Your task to perform on an android device: turn notification dots on Image 0: 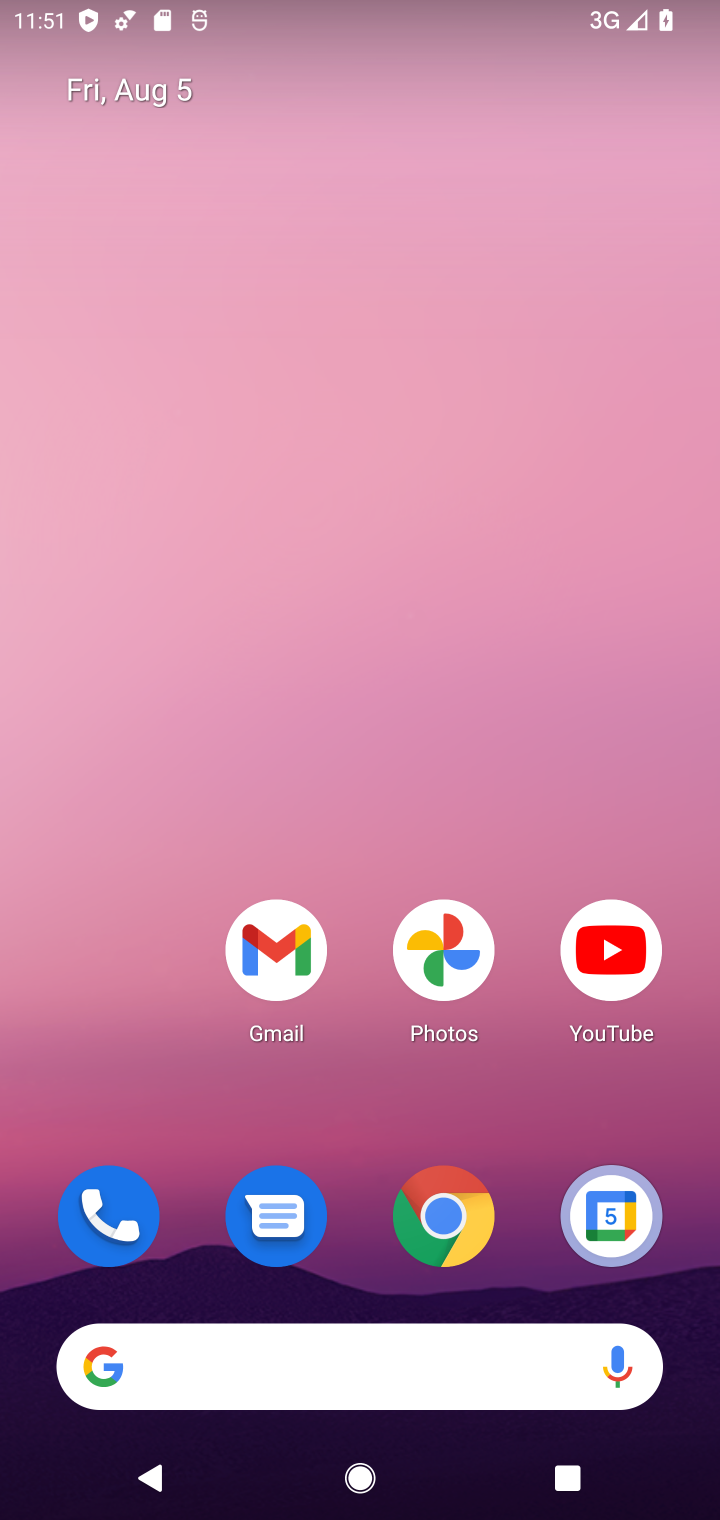
Step 0: drag from (439, 1337) to (277, 311)
Your task to perform on an android device: turn notification dots on Image 1: 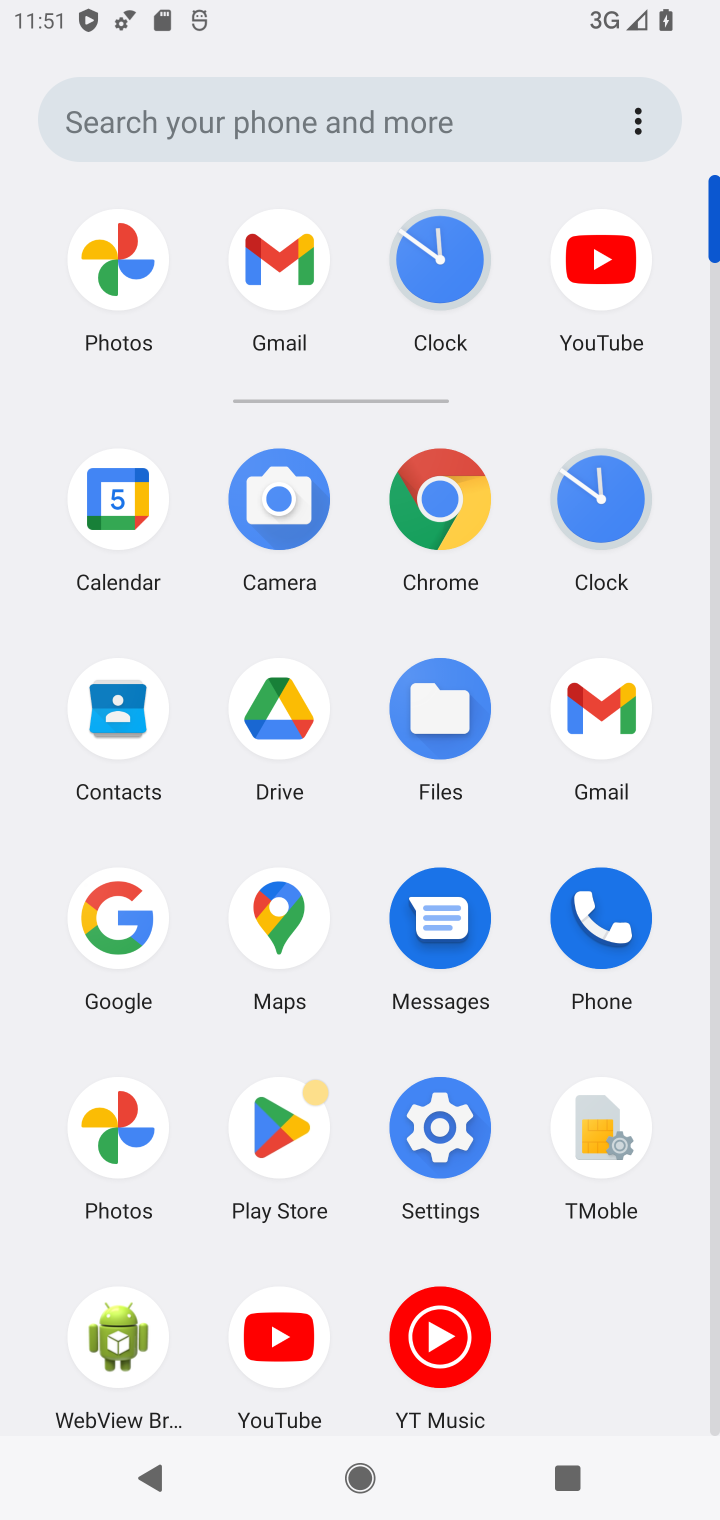
Step 1: click (443, 1100)
Your task to perform on an android device: turn notification dots on Image 2: 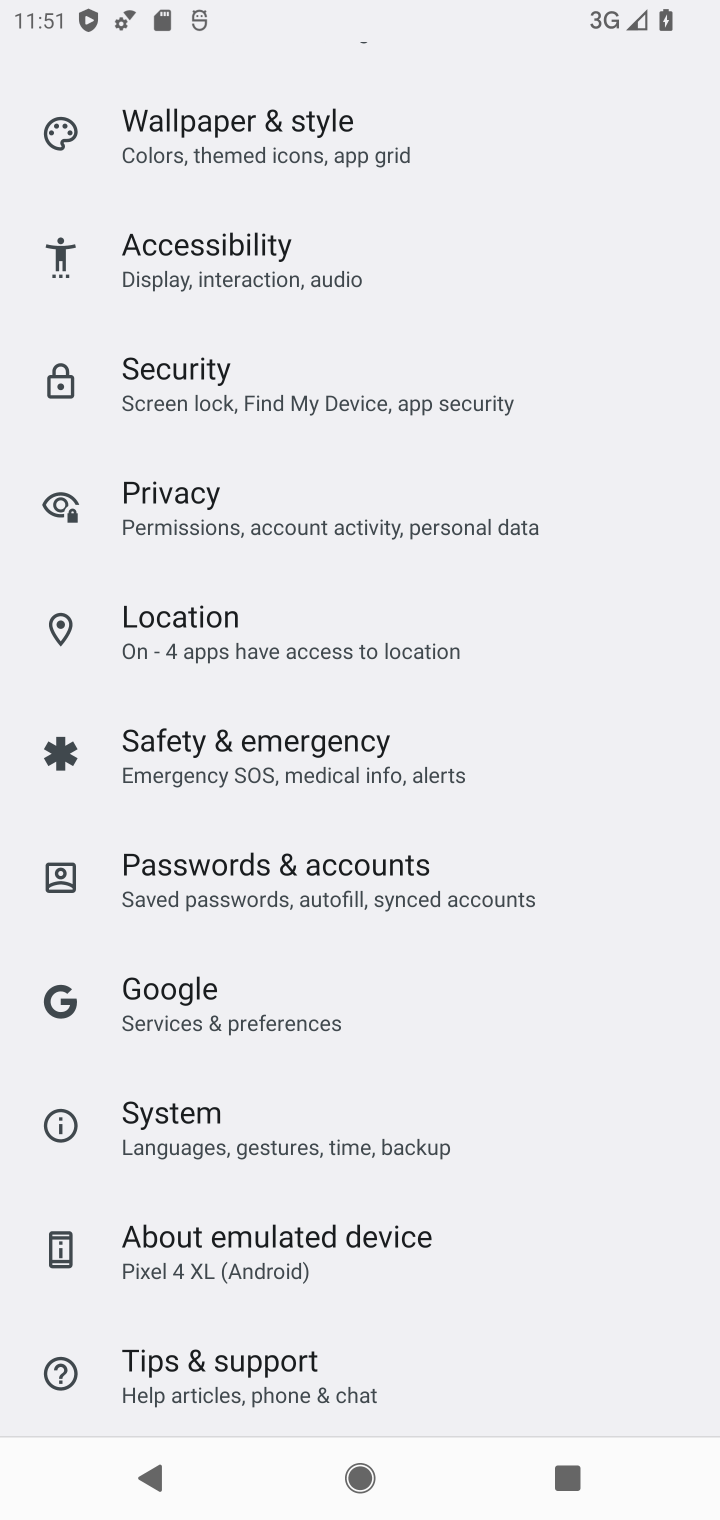
Step 2: drag from (570, 225) to (556, 1334)
Your task to perform on an android device: turn notification dots on Image 3: 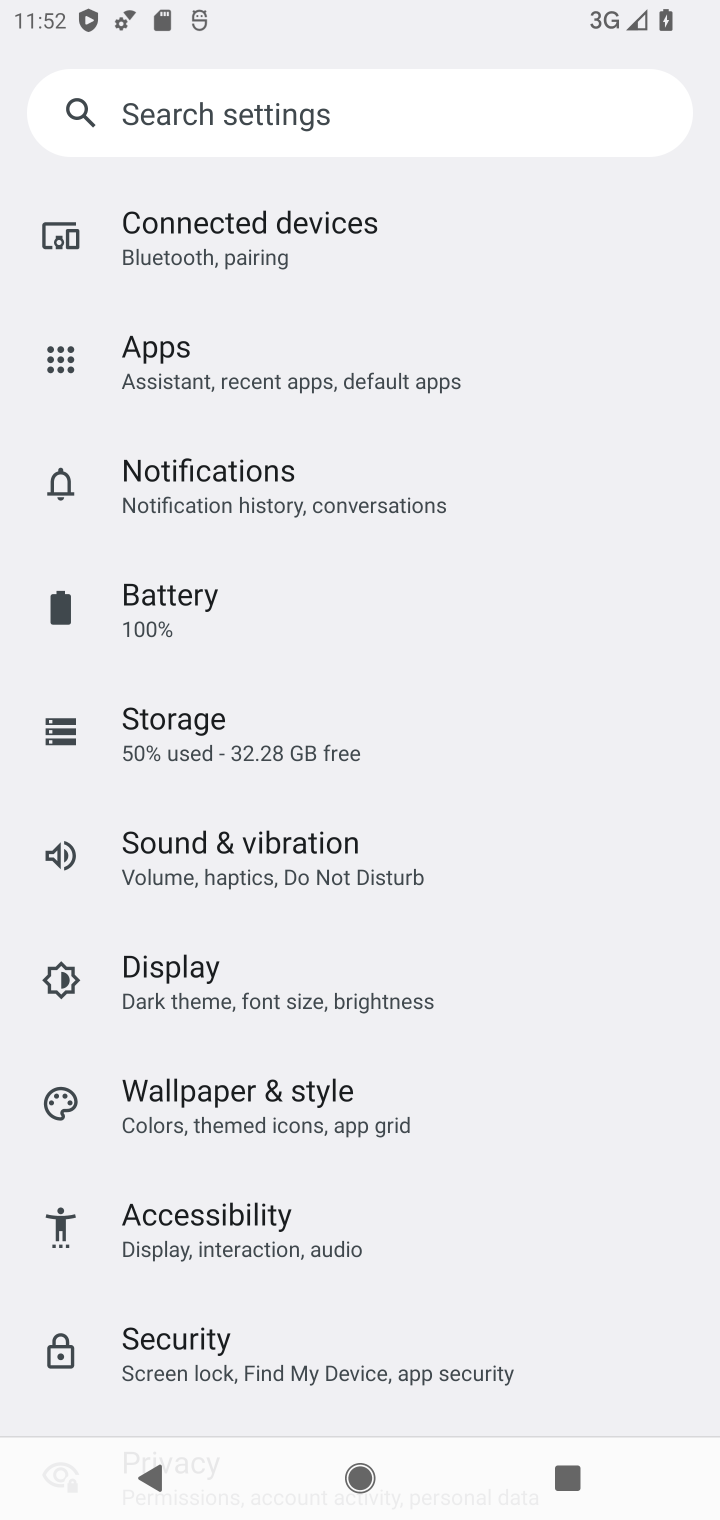
Step 3: click (222, 466)
Your task to perform on an android device: turn notification dots on Image 4: 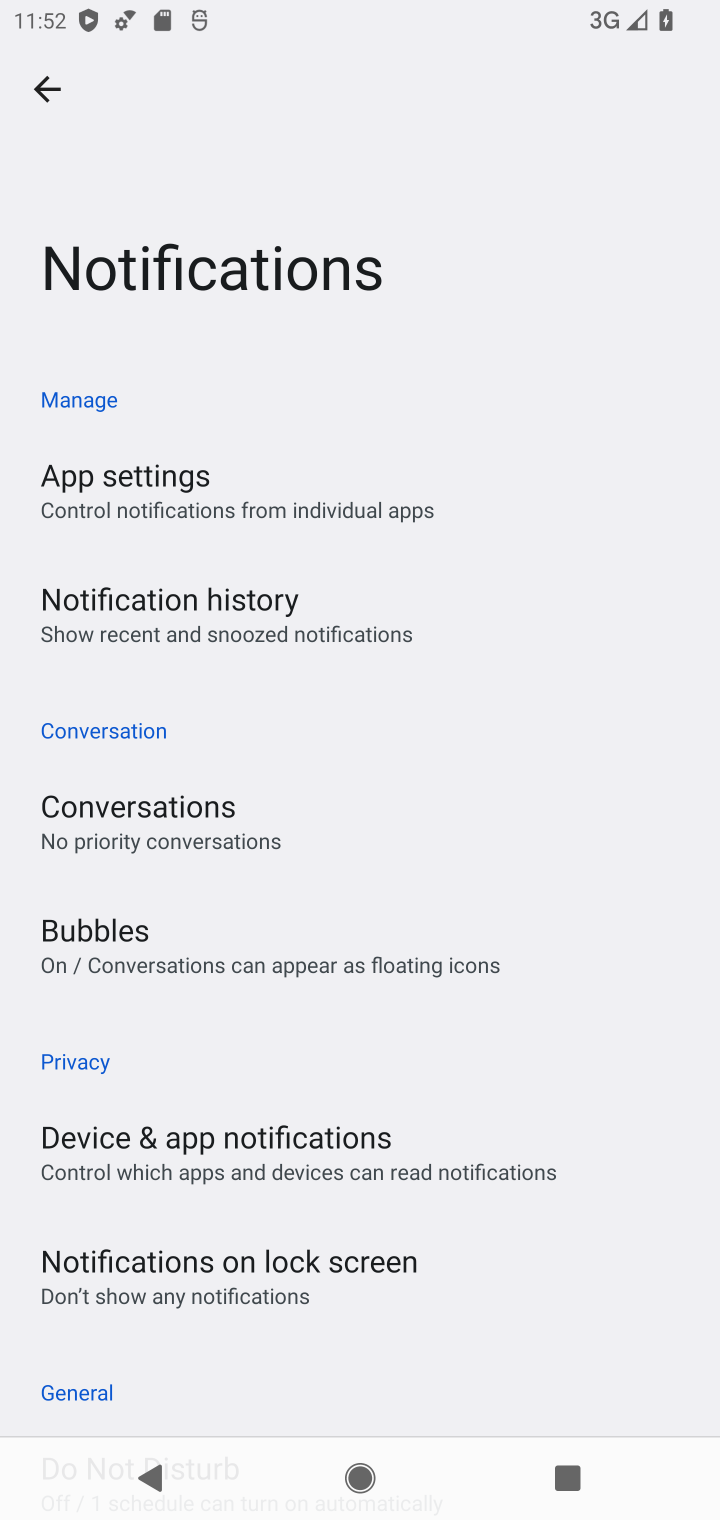
Step 4: task complete